Your task to perform on an android device: Open accessibility settings Image 0: 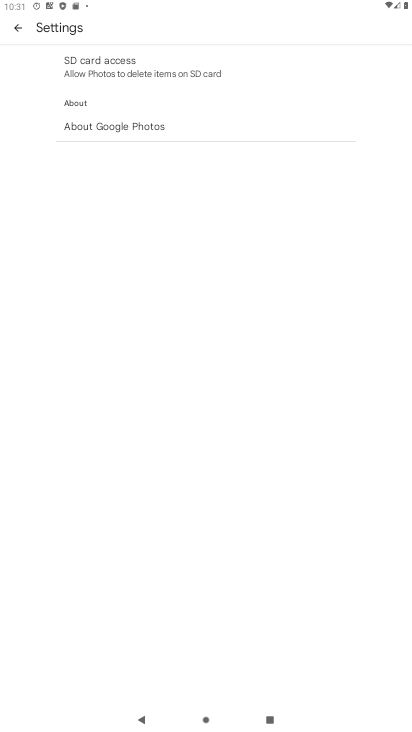
Step 0: click (14, 25)
Your task to perform on an android device: Open accessibility settings Image 1: 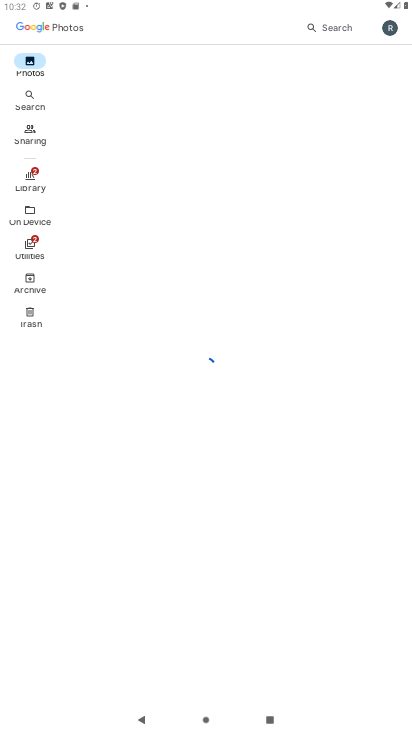
Step 1: drag from (170, 536) to (201, 230)
Your task to perform on an android device: Open accessibility settings Image 2: 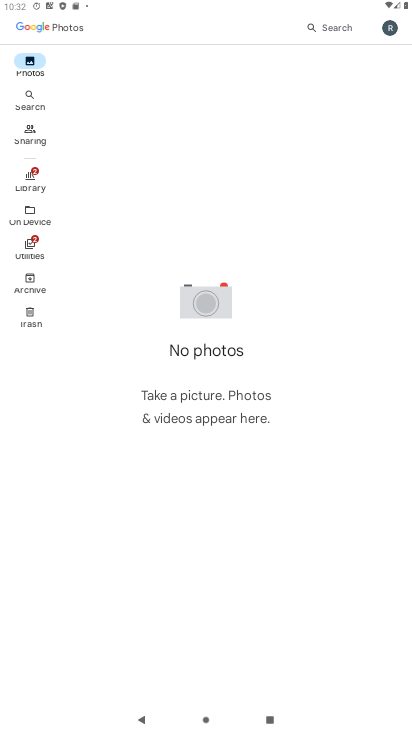
Step 2: drag from (194, 511) to (240, 301)
Your task to perform on an android device: Open accessibility settings Image 3: 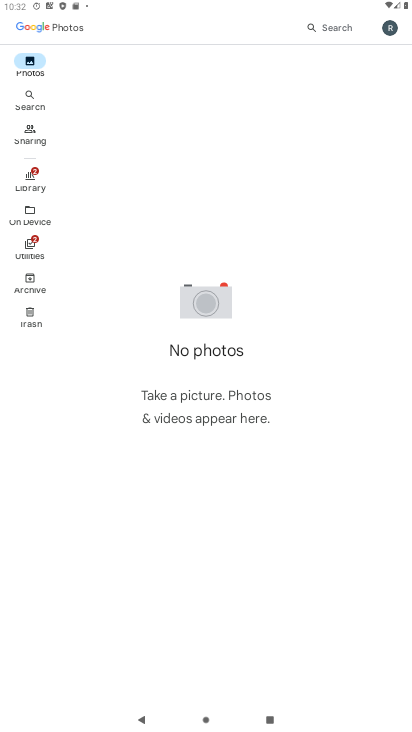
Step 3: drag from (176, 226) to (276, 508)
Your task to perform on an android device: Open accessibility settings Image 4: 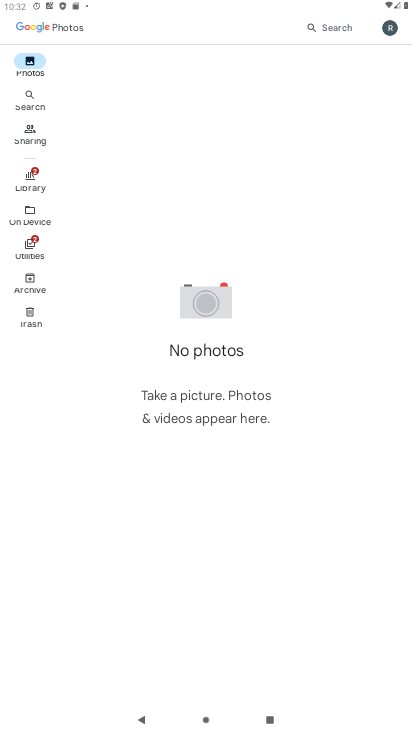
Step 4: drag from (267, 504) to (311, 299)
Your task to perform on an android device: Open accessibility settings Image 5: 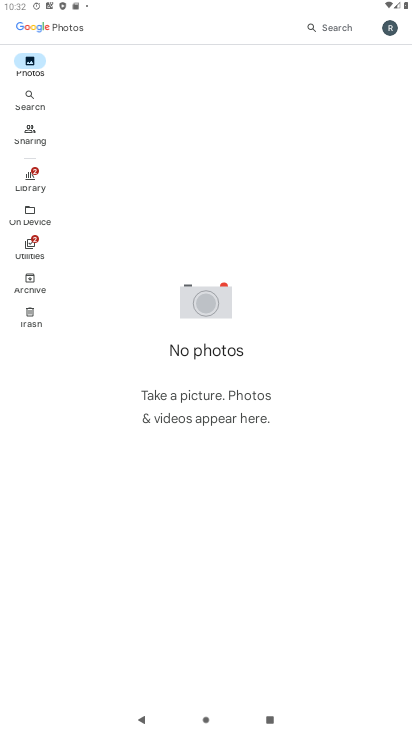
Step 5: press home button
Your task to perform on an android device: Open accessibility settings Image 6: 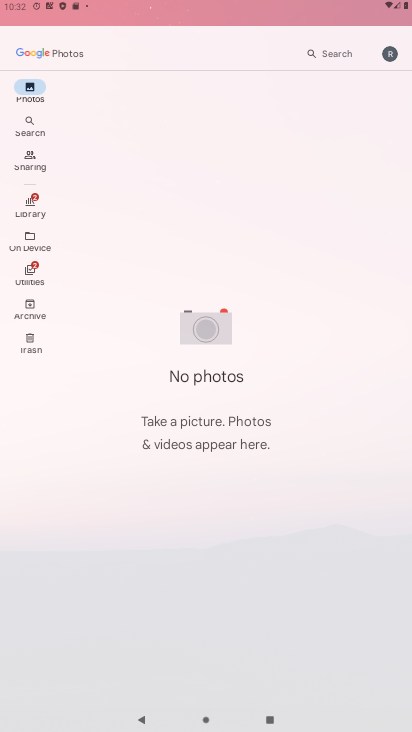
Step 6: drag from (252, 580) to (386, 126)
Your task to perform on an android device: Open accessibility settings Image 7: 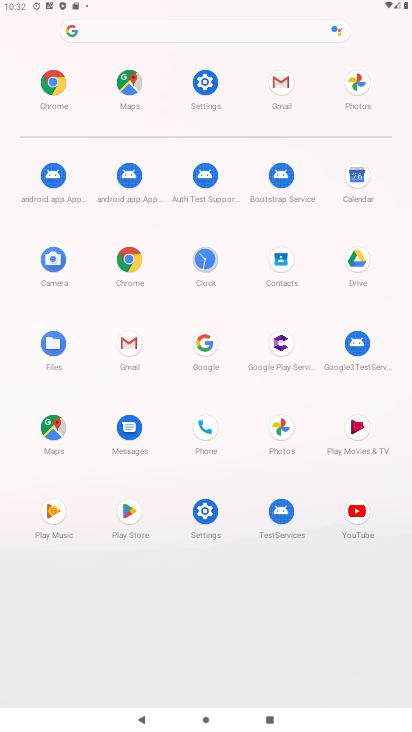
Step 7: click (197, 511)
Your task to perform on an android device: Open accessibility settings Image 8: 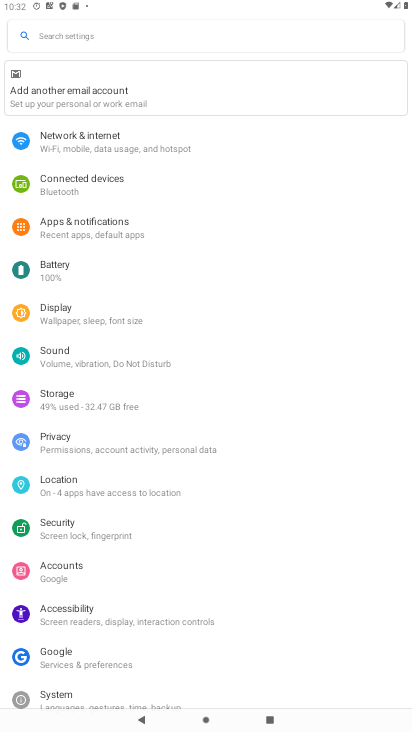
Step 8: click (107, 590)
Your task to perform on an android device: Open accessibility settings Image 9: 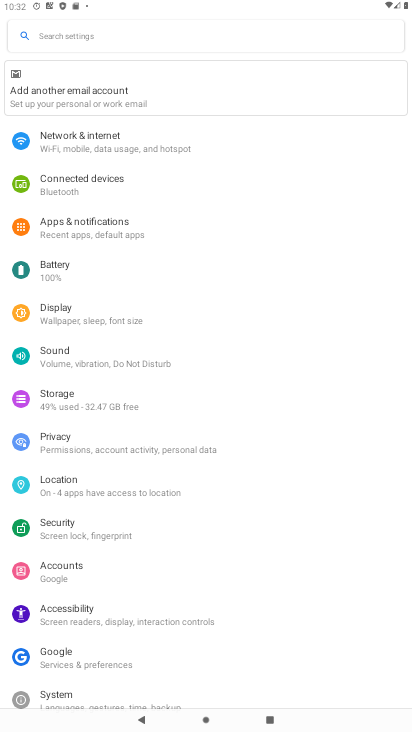
Step 9: click (104, 601)
Your task to perform on an android device: Open accessibility settings Image 10: 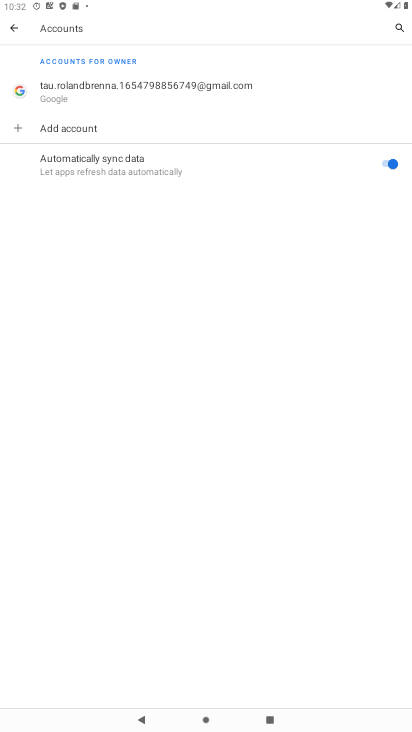
Step 10: click (8, 27)
Your task to perform on an android device: Open accessibility settings Image 11: 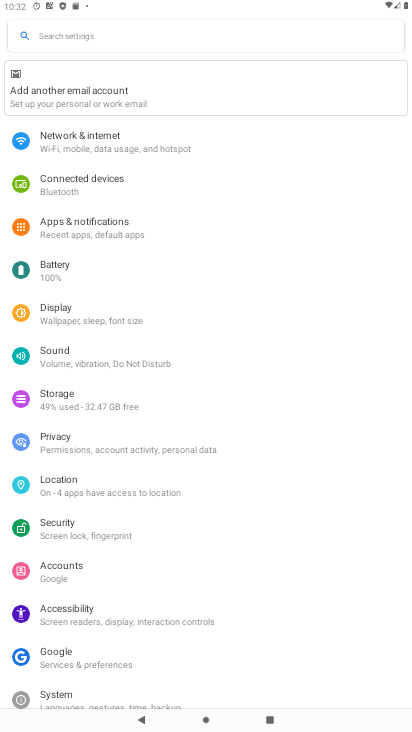
Step 11: click (88, 606)
Your task to perform on an android device: Open accessibility settings Image 12: 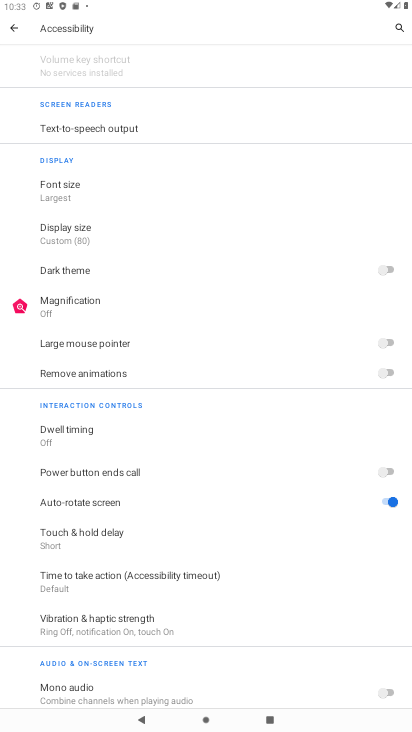
Step 12: task complete